Your task to perform on an android device: Show me the alarms in the clock app Image 0: 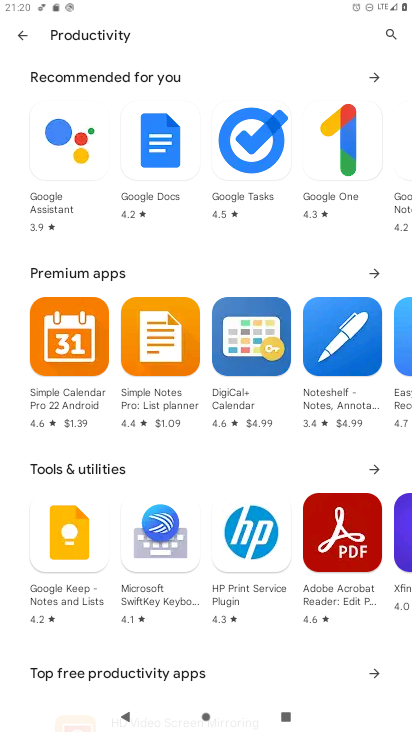
Step 0: press home button
Your task to perform on an android device: Show me the alarms in the clock app Image 1: 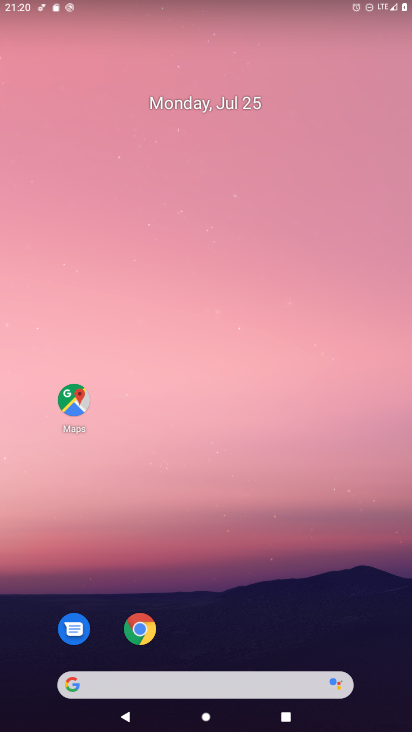
Step 1: drag from (209, 685) to (128, 61)
Your task to perform on an android device: Show me the alarms in the clock app Image 2: 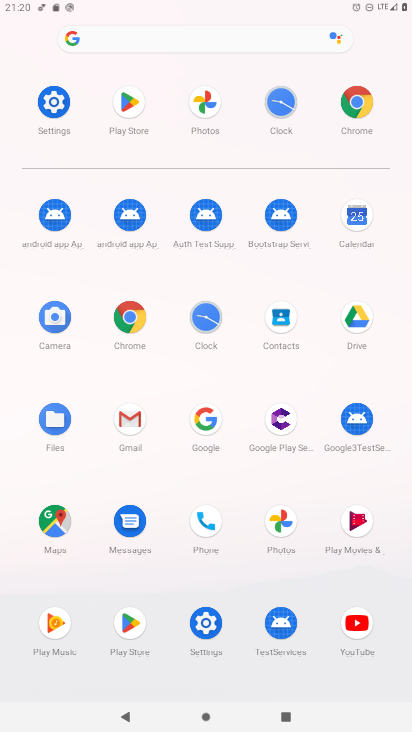
Step 2: click (280, 103)
Your task to perform on an android device: Show me the alarms in the clock app Image 3: 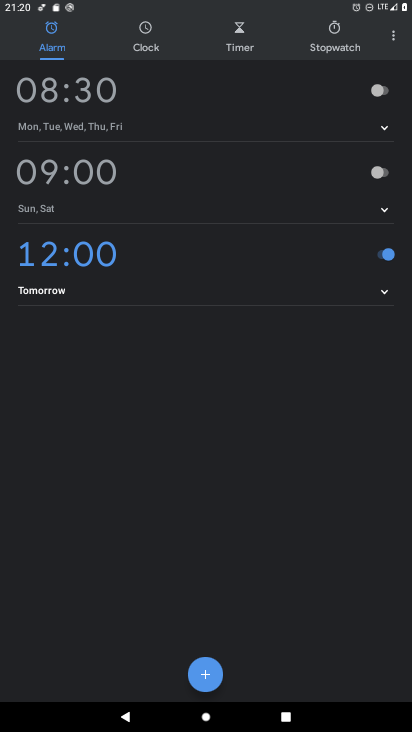
Step 3: click (202, 671)
Your task to perform on an android device: Show me the alarms in the clock app Image 4: 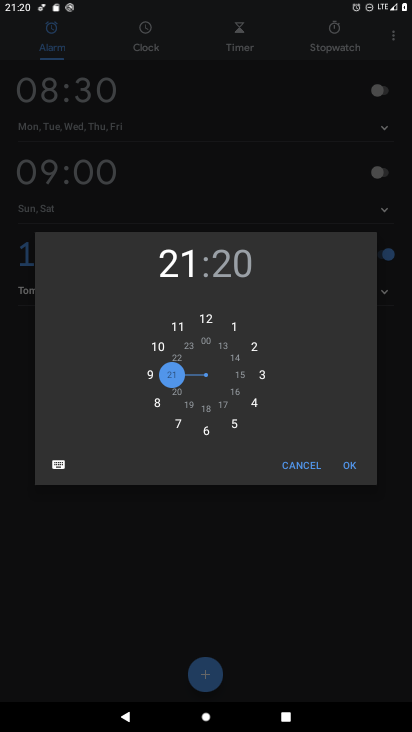
Step 4: click (236, 376)
Your task to perform on an android device: Show me the alarms in the clock app Image 5: 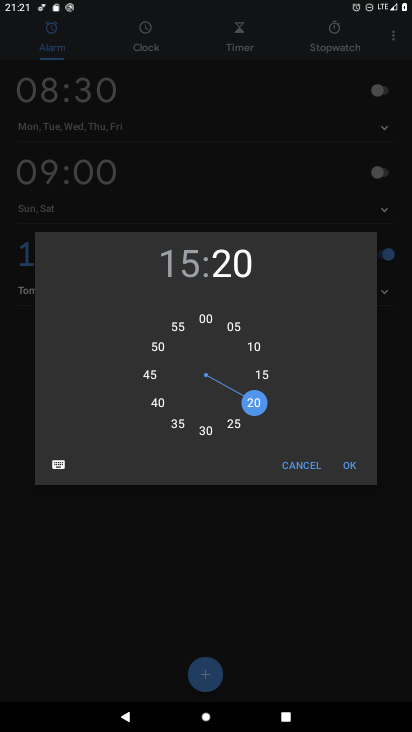
Step 5: click (158, 348)
Your task to perform on an android device: Show me the alarms in the clock app Image 6: 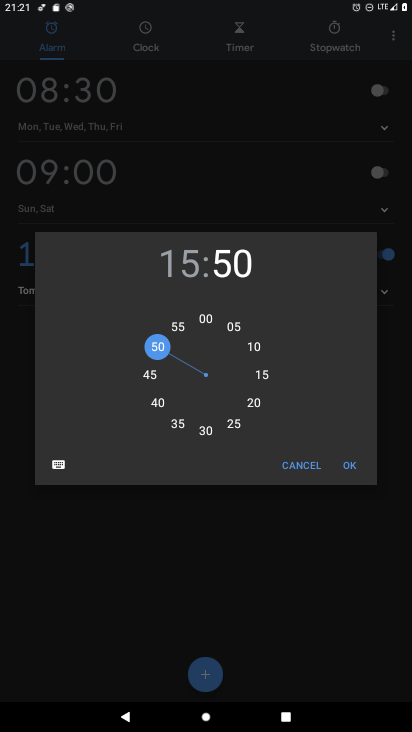
Step 6: click (350, 465)
Your task to perform on an android device: Show me the alarms in the clock app Image 7: 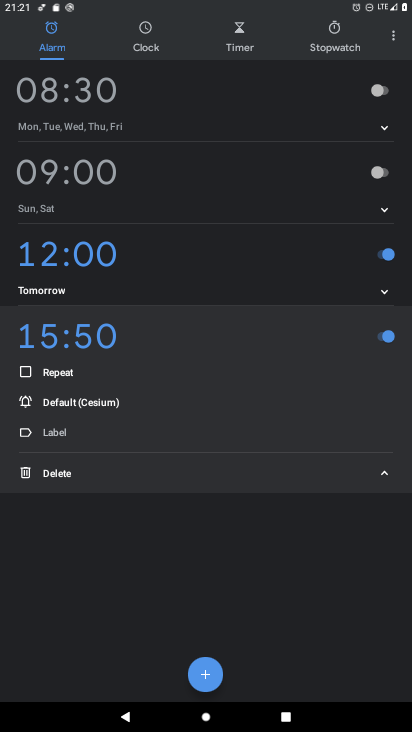
Step 7: click (383, 478)
Your task to perform on an android device: Show me the alarms in the clock app Image 8: 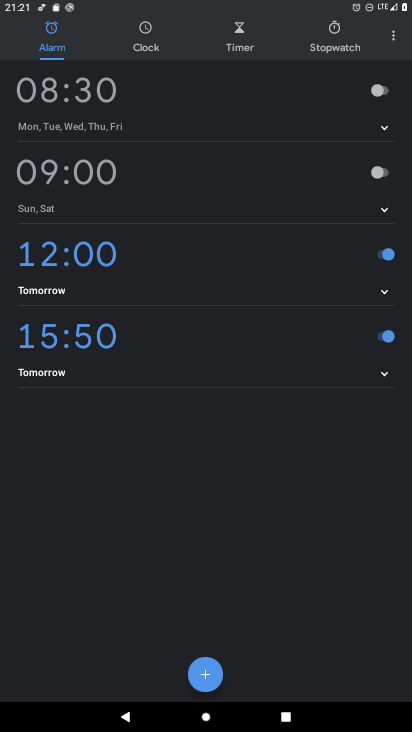
Step 8: task complete